Your task to perform on an android device: Go to Amazon Image 0: 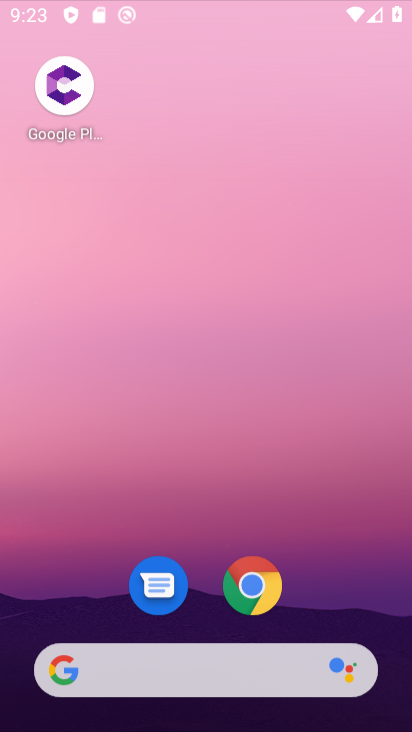
Step 0: click (304, 54)
Your task to perform on an android device: Go to Amazon Image 1: 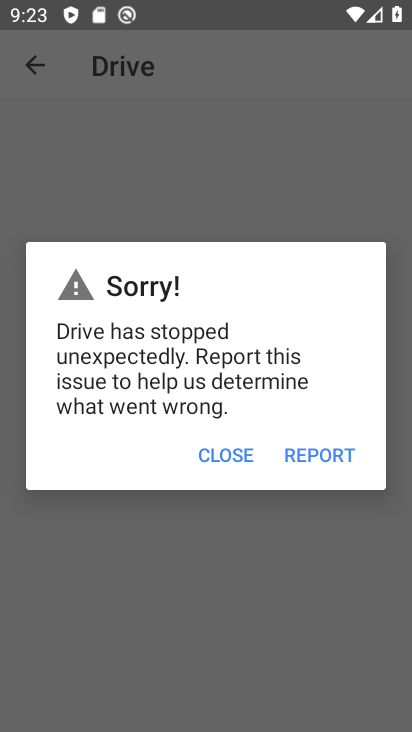
Step 1: press home button
Your task to perform on an android device: Go to Amazon Image 2: 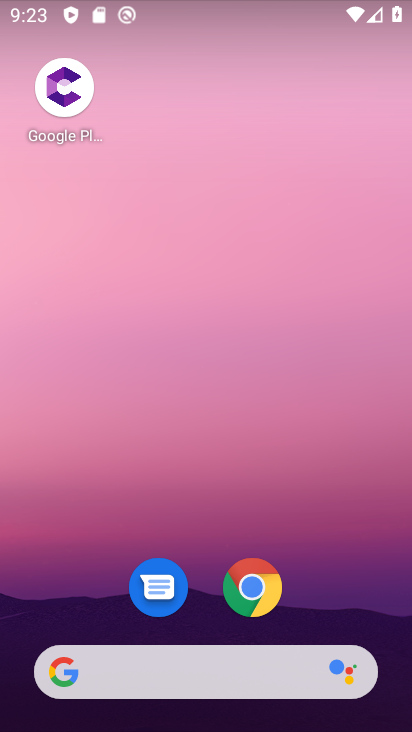
Step 2: drag from (380, 604) to (329, 23)
Your task to perform on an android device: Go to Amazon Image 3: 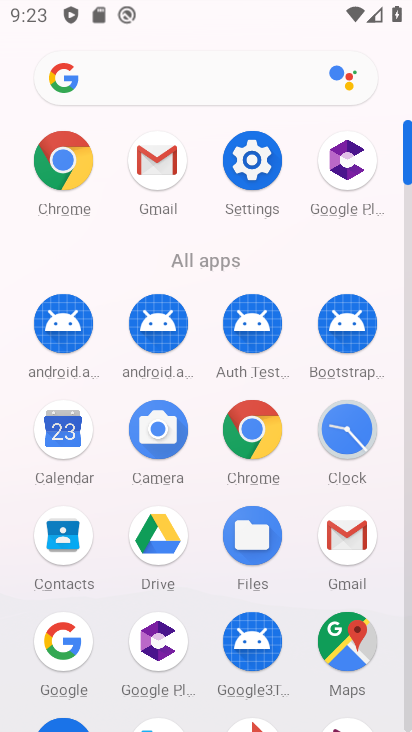
Step 3: click (81, 160)
Your task to perform on an android device: Go to Amazon Image 4: 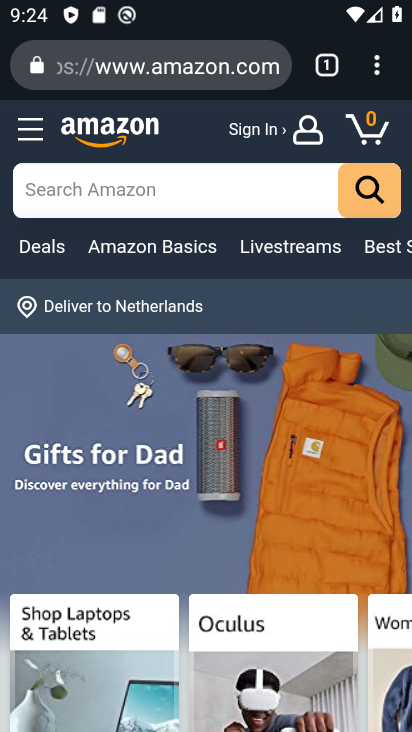
Step 4: task complete